Your task to perform on an android device: turn off location history Image 0: 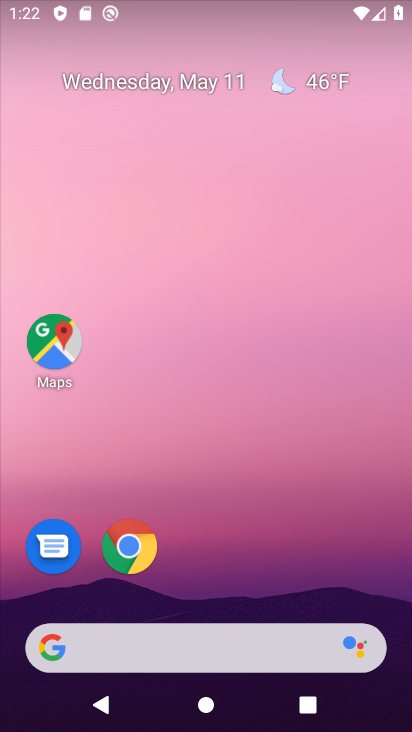
Step 0: drag from (208, 595) to (306, 34)
Your task to perform on an android device: turn off location history Image 1: 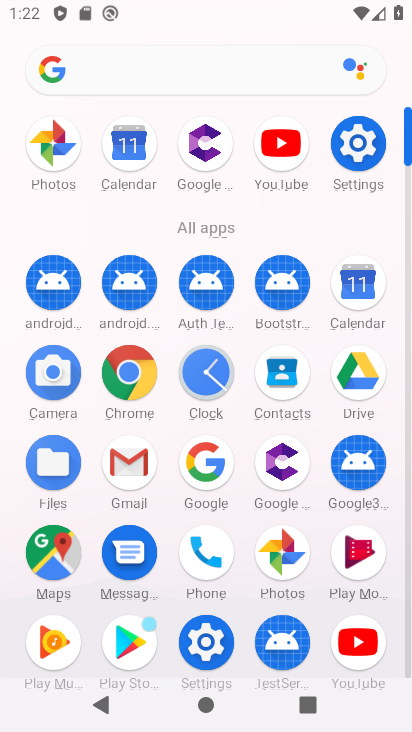
Step 1: click (213, 645)
Your task to perform on an android device: turn off location history Image 2: 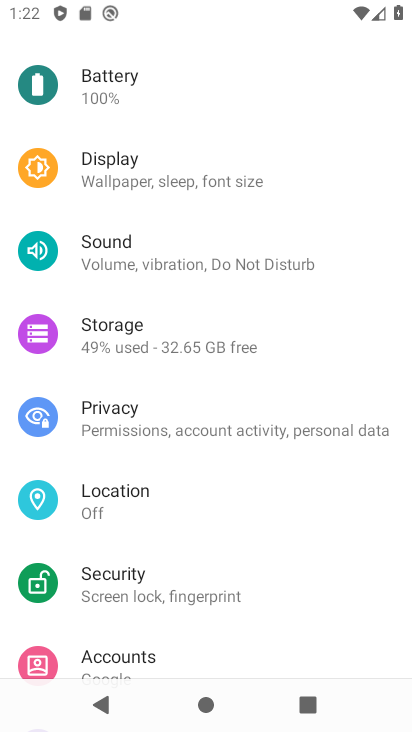
Step 2: click (127, 492)
Your task to perform on an android device: turn off location history Image 3: 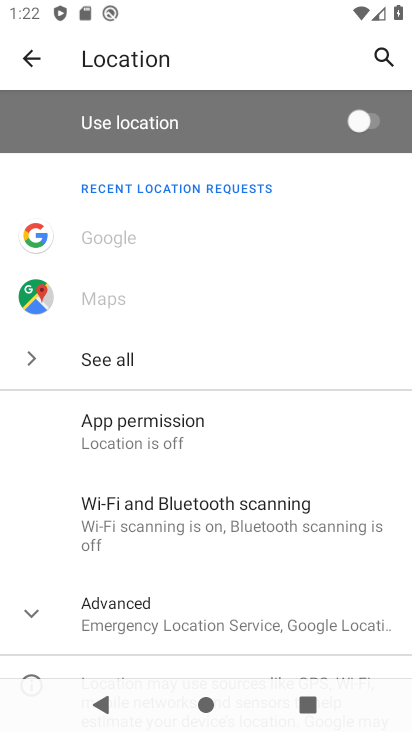
Step 3: drag from (194, 570) to (255, 189)
Your task to perform on an android device: turn off location history Image 4: 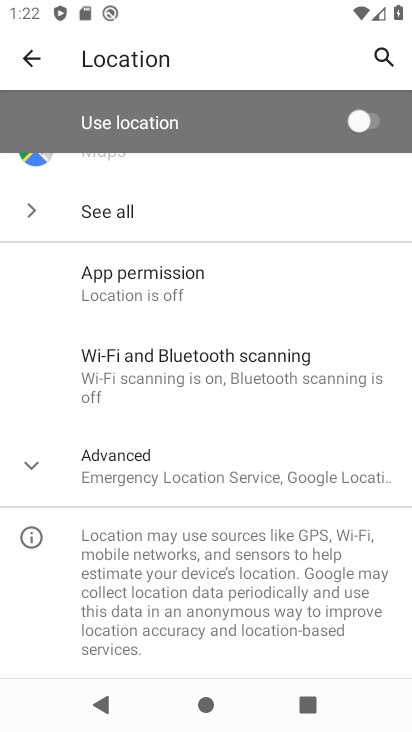
Step 4: click (142, 464)
Your task to perform on an android device: turn off location history Image 5: 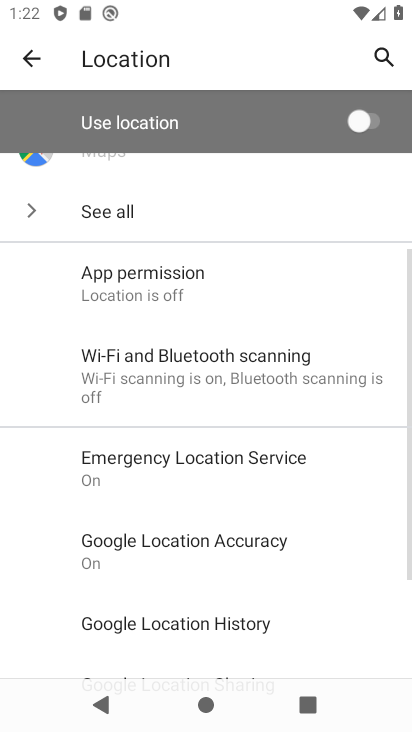
Step 5: drag from (200, 548) to (264, 250)
Your task to perform on an android device: turn off location history Image 6: 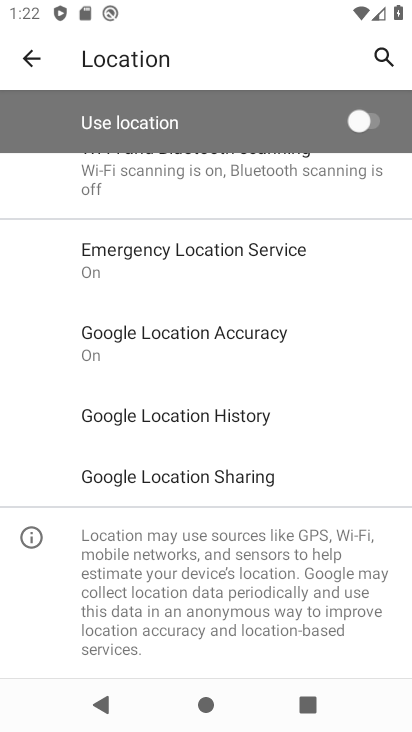
Step 6: click (163, 436)
Your task to perform on an android device: turn off location history Image 7: 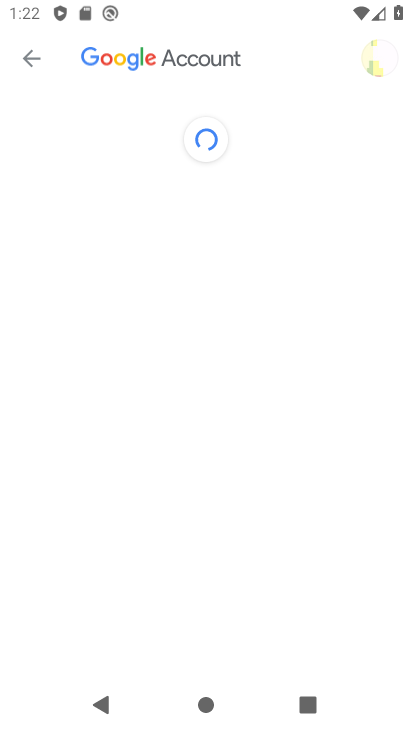
Step 7: task complete